Your task to perform on an android device: open app "Airtel Thanks" (install if not already installed) Image 0: 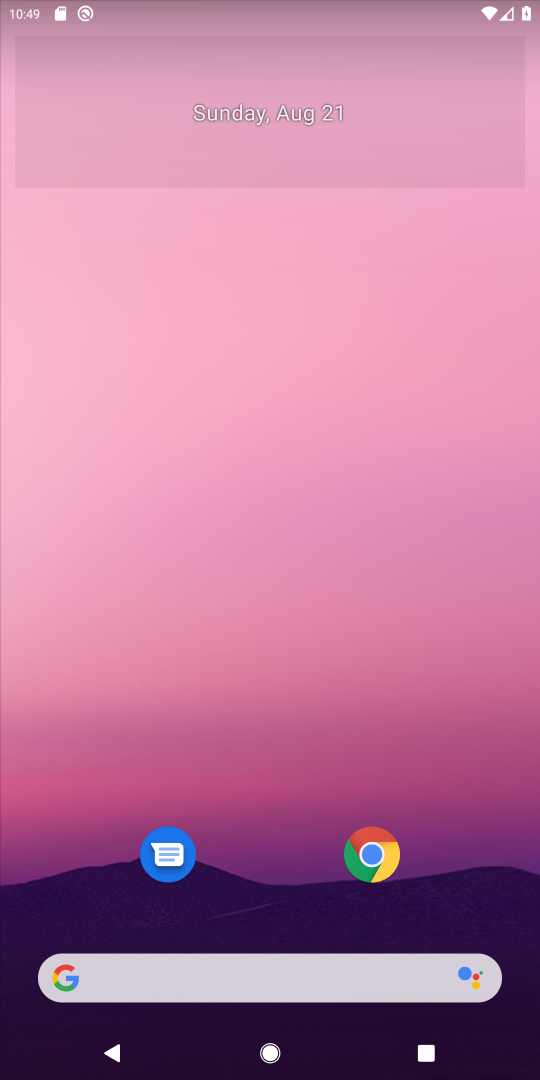
Step 0: drag from (311, 912) to (306, 68)
Your task to perform on an android device: open app "Airtel Thanks" (install if not already installed) Image 1: 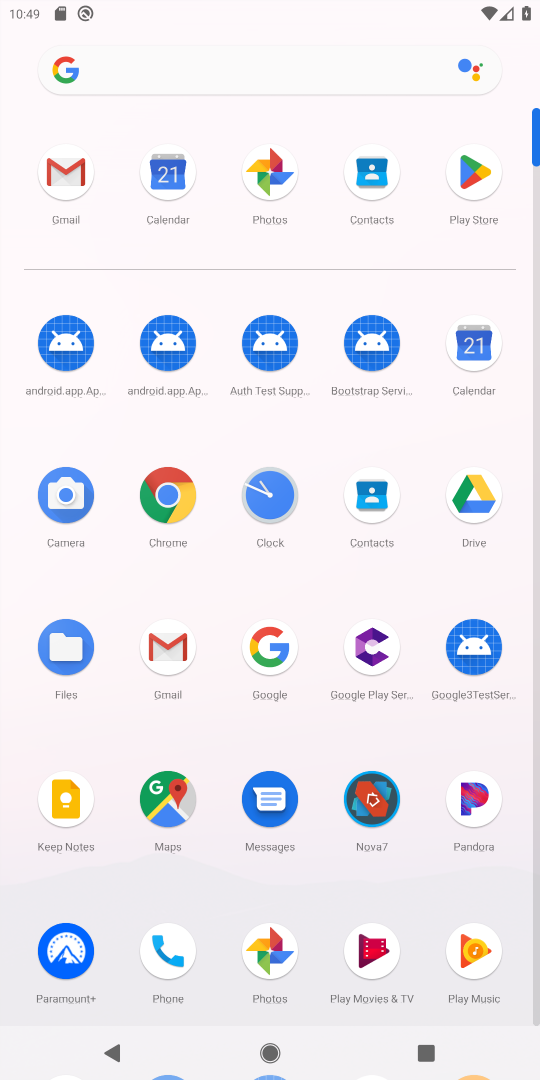
Step 1: click (306, 68)
Your task to perform on an android device: open app "Airtel Thanks" (install if not already installed) Image 2: 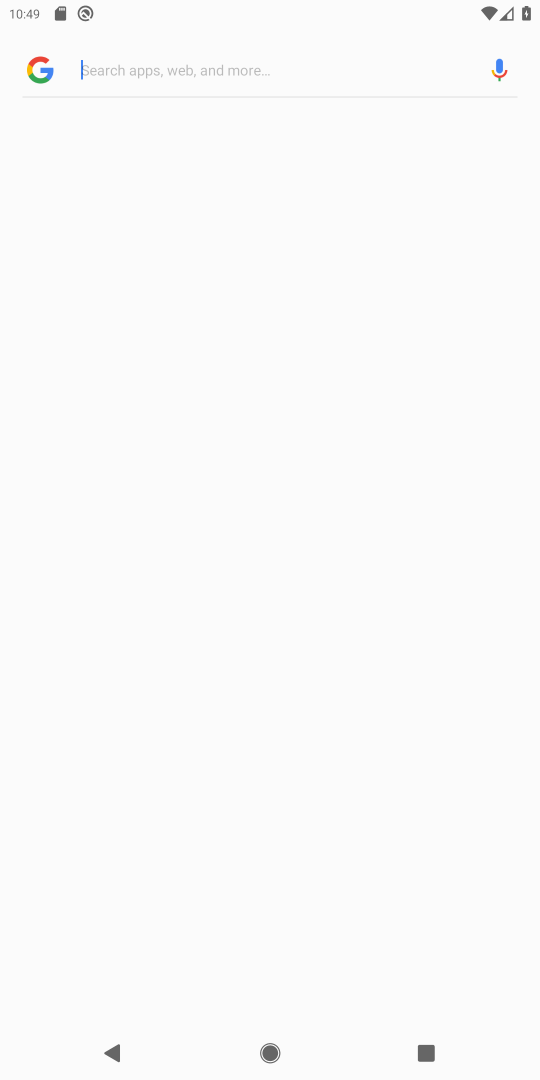
Step 2: click (459, 203)
Your task to perform on an android device: open app "Airtel Thanks" (install if not already installed) Image 3: 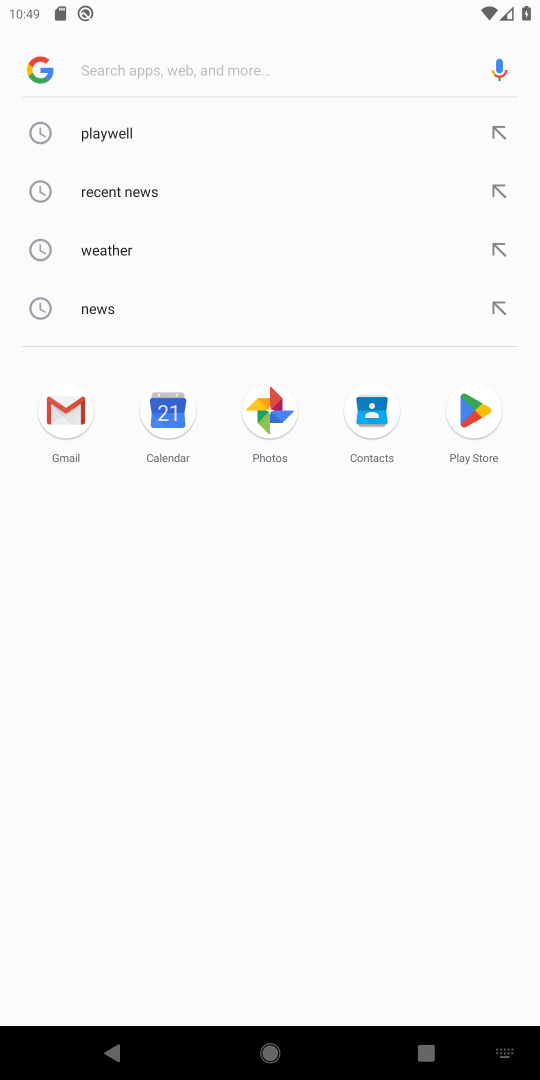
Step 3: click (492, 417)
Your task to perform on an android device: open app "Airtel Thanks" (install if not already installed) Image 4: 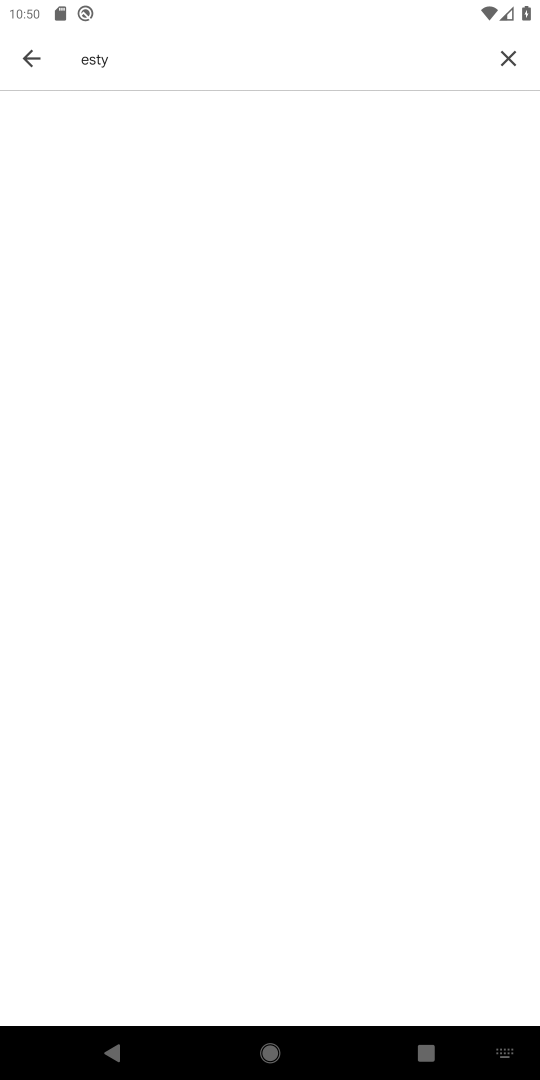
Step 4: task complete